Your task to perform on an android device: What's on my calendar today? Image 0: 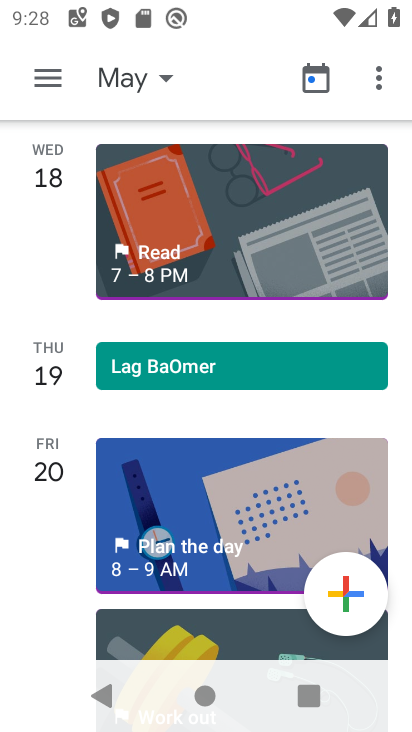
Step 0: click (27, 74)
Your task to perform on an android device: What's on my calendar today? Image 1: 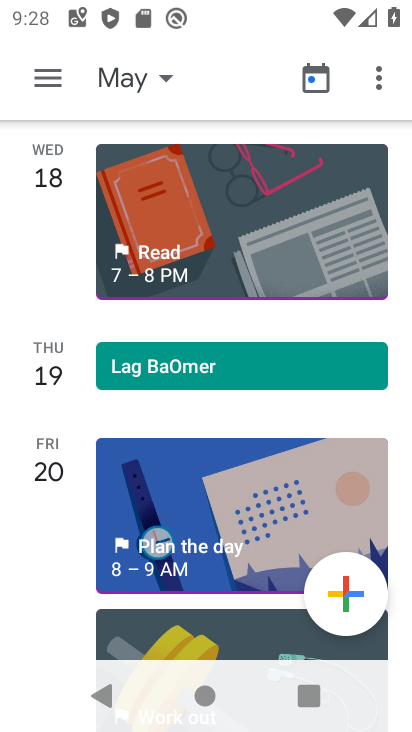
Step 1: click (57, 67)
Your task to perform on an android device: What's on my calendar today? Image 2: 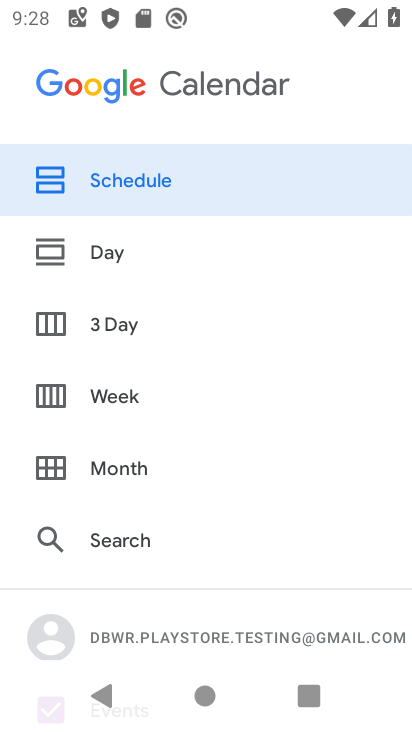
Step 2: click (150, 252)
Your task to perform on an android device: What's on my calendar today? Image 3: 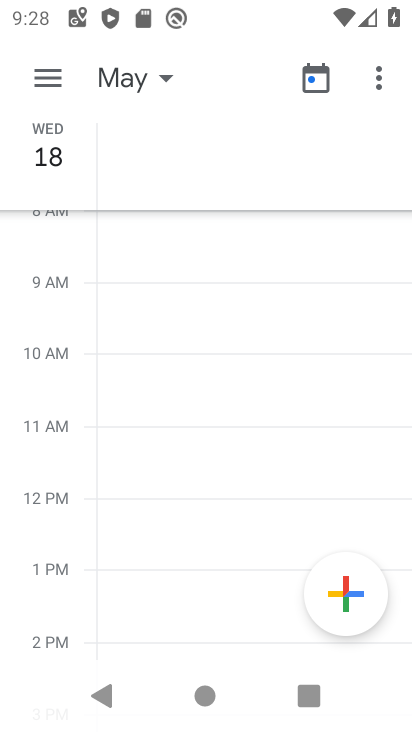
Step 3: click (34, 67)
Your task to perform on an android device: What's on my calendar today? Image 4: 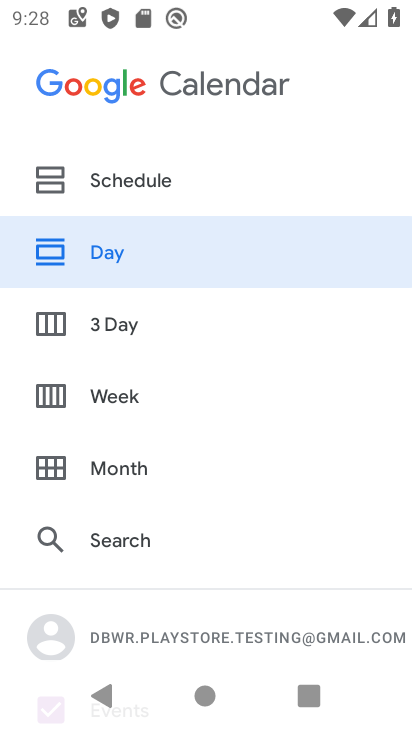
Step 4: click (224, 252)
Your task to perform on an android device: What's on my calendar today? Image 5: 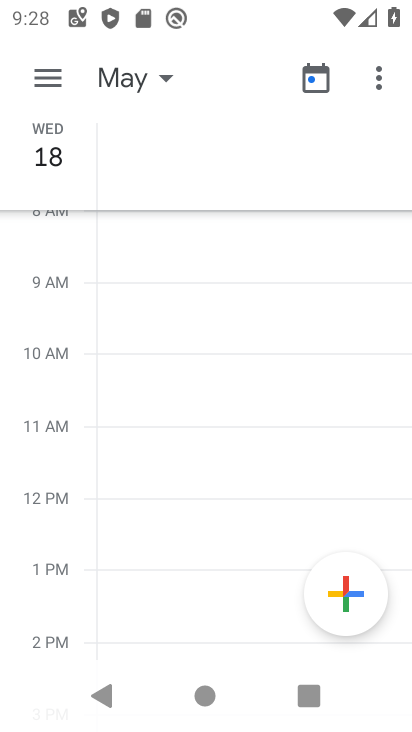
Step 5: task complete